Your task to perform on an android device: Clear the shopping cart on walmart.com. Search for "dell alienware" on walmart.com, select the first entry, and add it to the cart. Image 0: 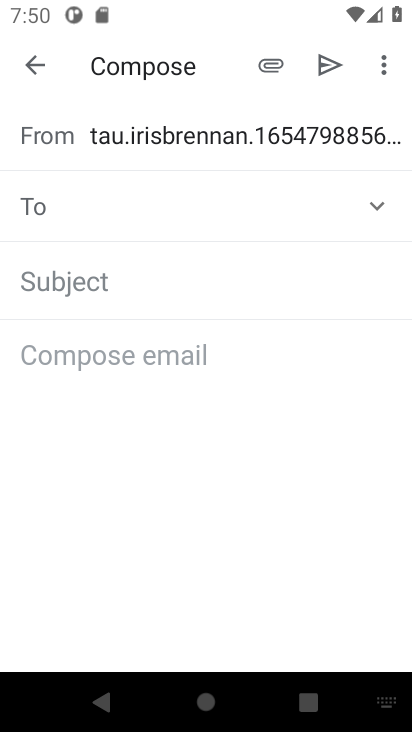
Step 0: press home button
Your task to perform on an android device: Clear the shopping cart on walmart.com. Search for "dell alienware" on walmart.com, select the first entry, and add it to the cart. Image 1: 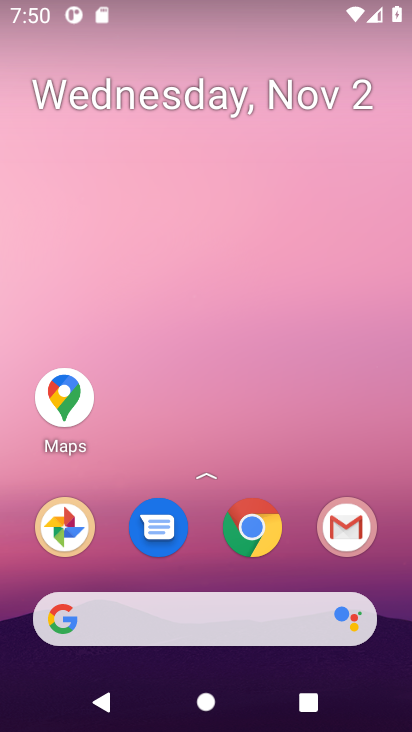
Step 1: click (252, 530)
Your task to perform on an android device: Clear the shopping cart on walmart.com. Search for "dell alienware" on walmart.com, select the first entry, and add it to the cart. Image 2: 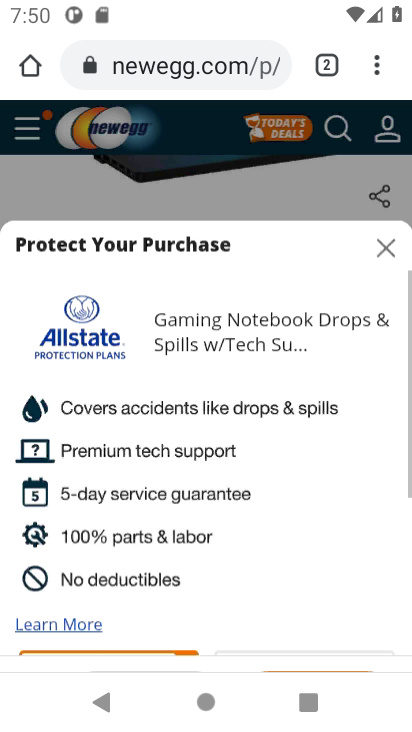
Step 2: click (196, 70)
Your task to perform on an android device: Clear the shopping cart on walmart.com. Search for "dell alienware" on walmart.com, select the first entry, and add it to the cart. Image 3: 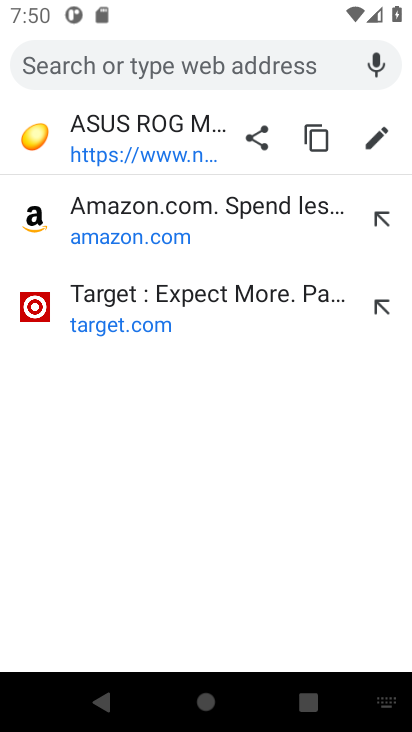
Step 3: type "walmart"
Your task to perform on an android device: Clear the shopping cart on walmart.com. Search for "dell alienware" on walmart.com, select the first entry, and add it to the cart. Image 4: 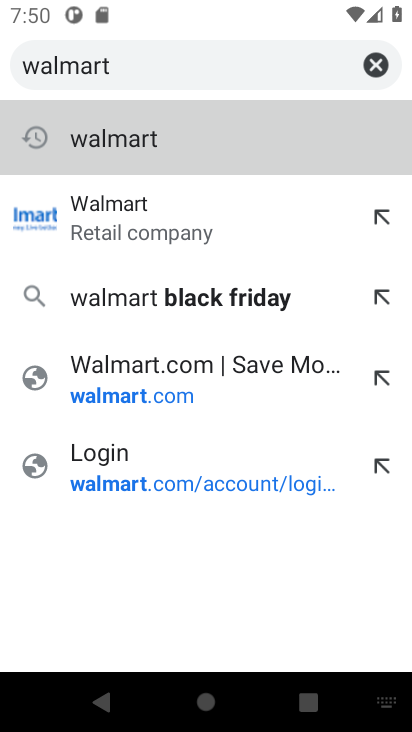
Step 4: click (109, 128)
Your task to perform on an android device: Clear the shopping cart on walmart.com. Search for "dell alienware" on walmart.com, select the first entry, and add it to the cart. Image 5: 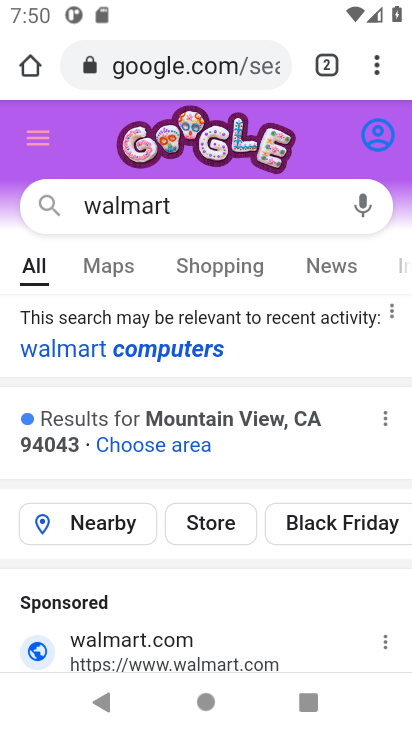
Step 5: drag from (238, 570) to (167, 27)
Your task to perform on an android device: Clear the shopping cart on walmart.com. Search for "dell alienware" on walmart.com, select the first entry, and add it to the cart. Image 6: 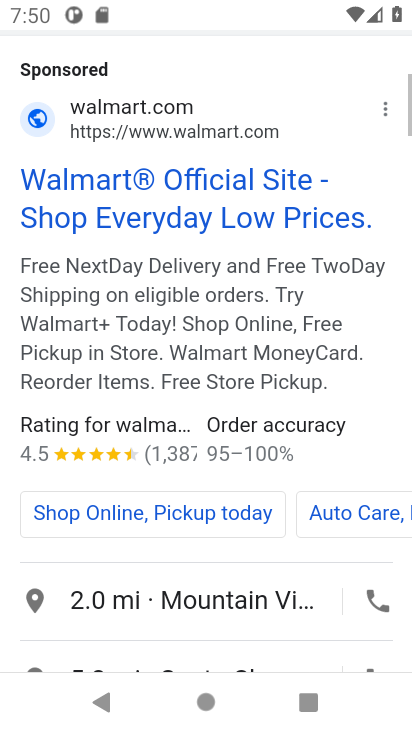
Step 6: drag from (293, 552) to (183, 188)
Your task to perform on an android device: Clear the shopping cart on walmart.com. Search for "dell alienware" on walmart.com, select the first entry, and add it to the cart. Image 7: 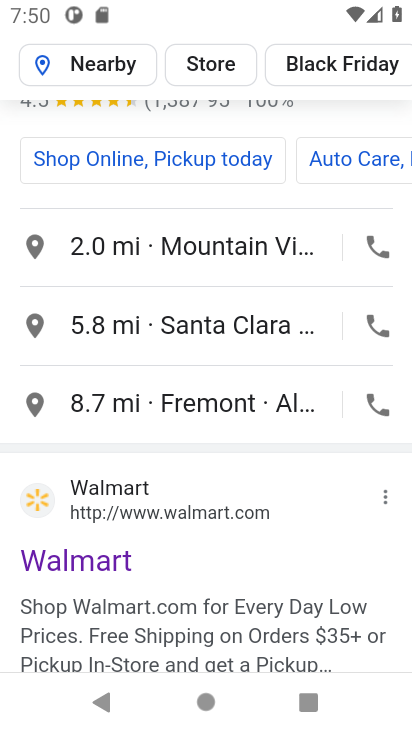
Step 7: click (77, 568)
Your task to perform on an android device: Clear the shopping cart on walmart.com. Search for "dell alienware" on walmart.com, select the first entry, and add it to the cart. Image 8: 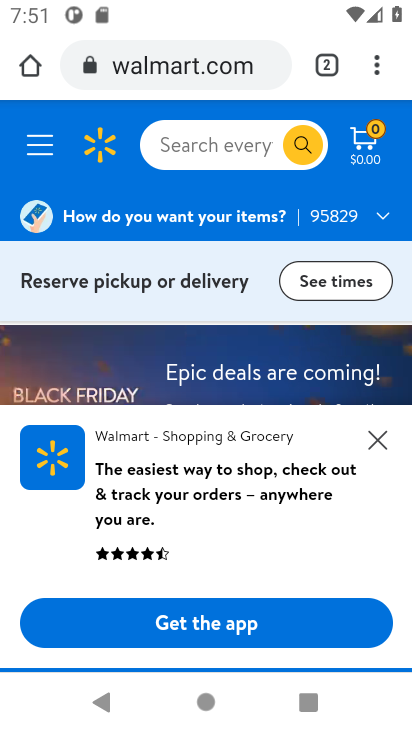
Step 8: click (382, 441)
Your task to perform on an android device: Clear the shopping cart on walmart.com. Search for "dell alienware" on walmart.com, select the first entry, and add it to the cart. Image 9: 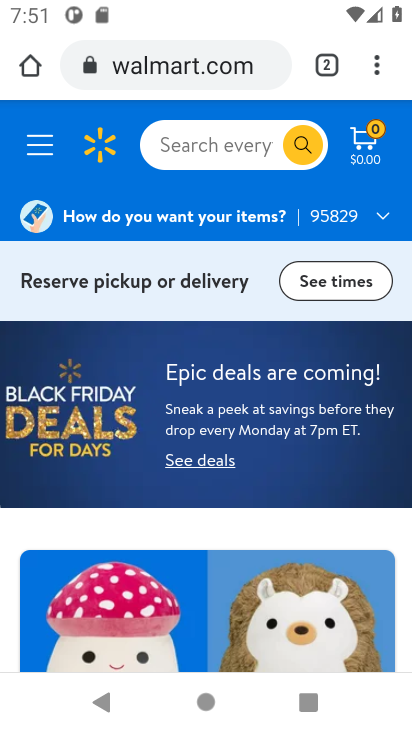
Step 9: click (374, 144)
Your task to perform on an android device: Clear the shopping cart on walmart.com. Search for "dell alienware" on walmart.com, select the first entry, and add it to the cart. Image 10: 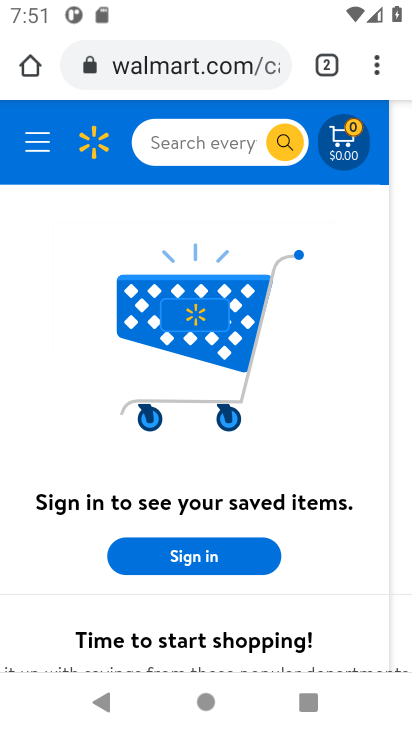
Step 10: click (248, 146)
Your task to perform on an android device: Clear the shopping cart on walmart.com. Search for "dell alienware" on walmart.com, select the first entry, and add it to the cart. Image 11: 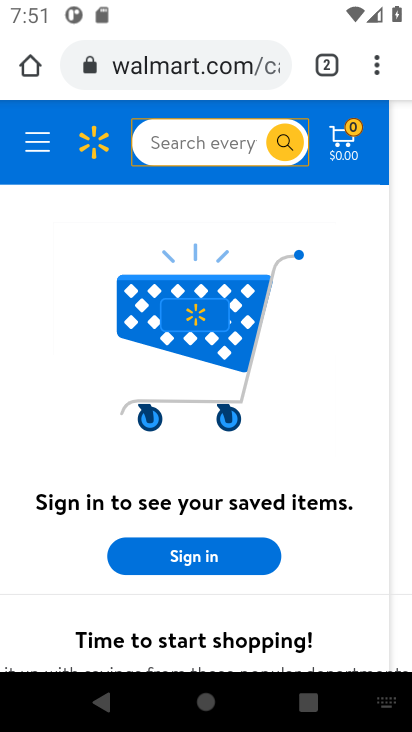
Step 11: type "dell alienware"
Your task to perform on an android device: Clear the shopping cart on walmart.com. Search for "dell alienware" on walmart.com, select the first entry, and add it to the cart. Image 12: 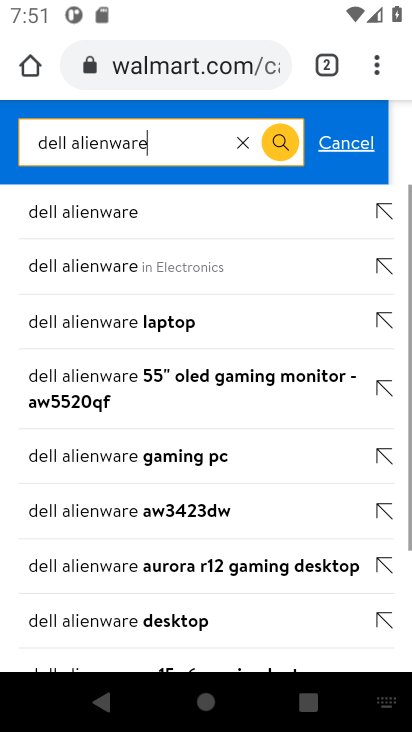
Step 12: click (70, 211)
Your task to perform on an android device: Clear the shopping cart on walmart.com. Search for "dell alienware" on walmart.com, select the first entry, and add it to the cart. Image 13: 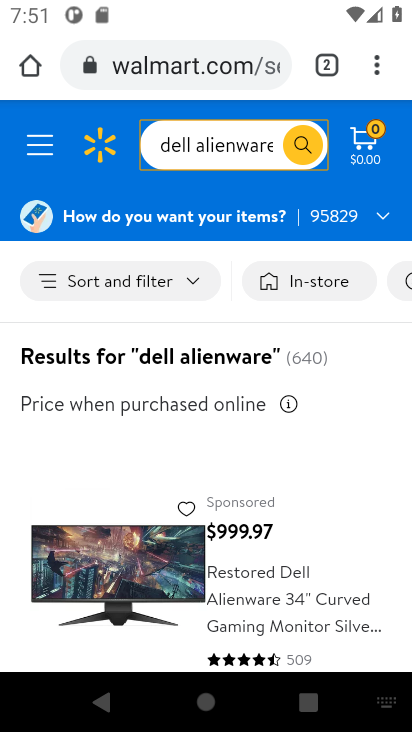
Step 13: click (151, 567)
Your task to perform on an android device: Clear the shopping cart on walmart.com. Search for "dell alienware" on walmart.com, select the first entry, and add it to the cart. Image 14: 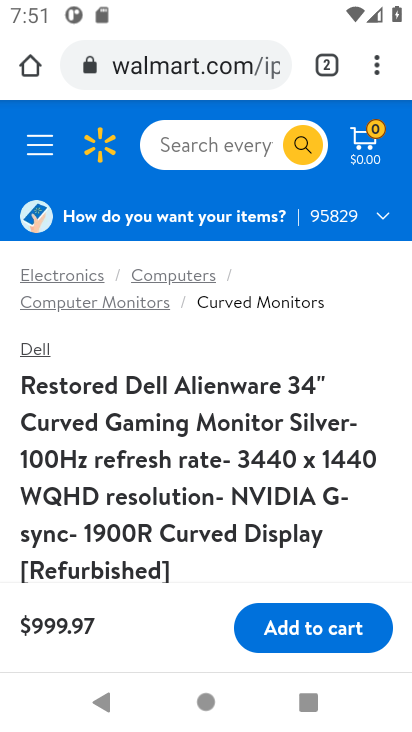
Step 14: click (316, 629)
Your task to perform on an android device: Clear the shopping cart on walmart.com. Search for "dell alienware" on walmart.com, select the first entry, and add it to the cart. Image 15: 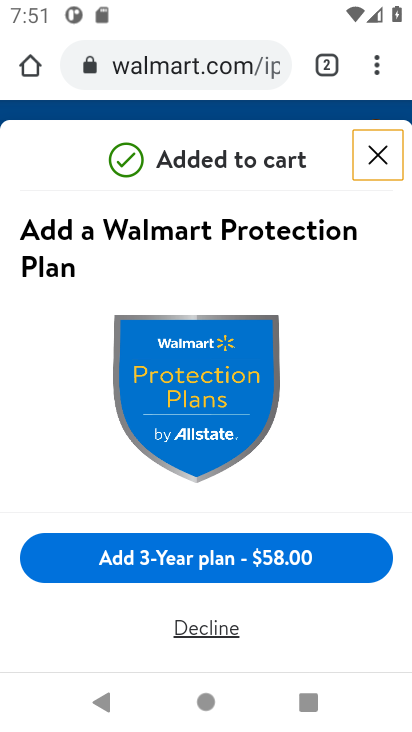
Step 15: click (207, 631)
Your task to perform on an android device: Clear the shopping cart on walmart.com. Search for "dell alienware" on walmart.com, select the first entry, and add it to the cart. Image 16: 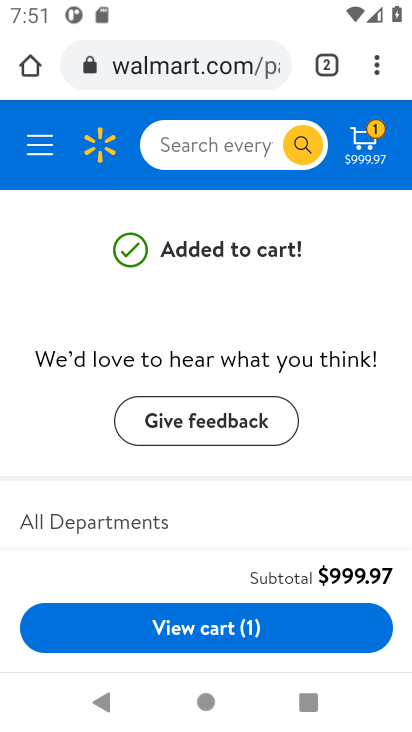
Step 16: task complete